Your task to perform on an android device: open chrome and create a bookmark for the current page Image 0: 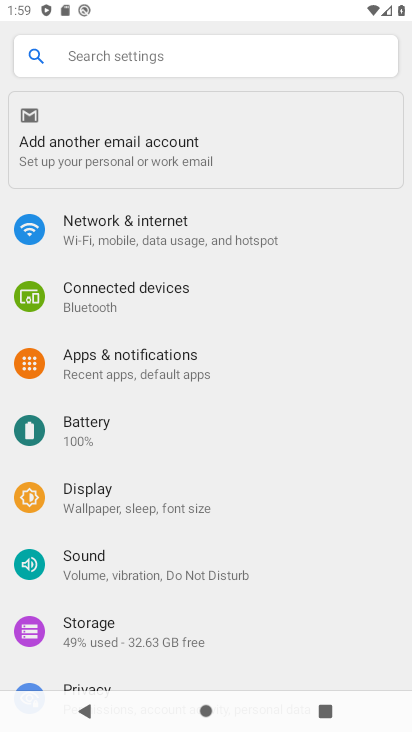
Step 0: press home button
Your task to perform on an android device: open chrome and create a bookmark for the current page Image 1: 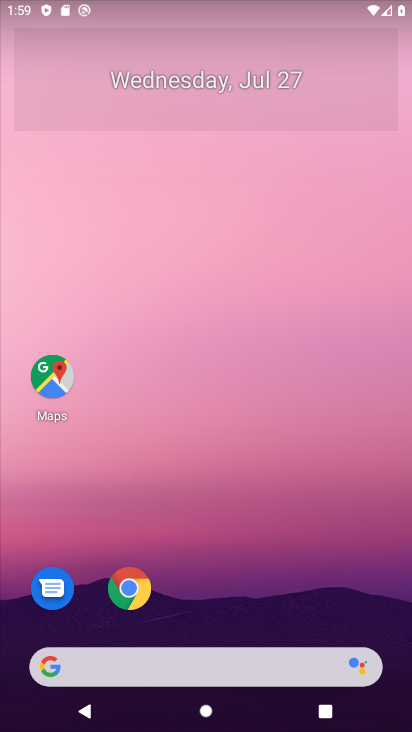
Step 1: click (150, 585)
Your task to perform on an android device: open chrome and create a bookmark for the current page Image 2: 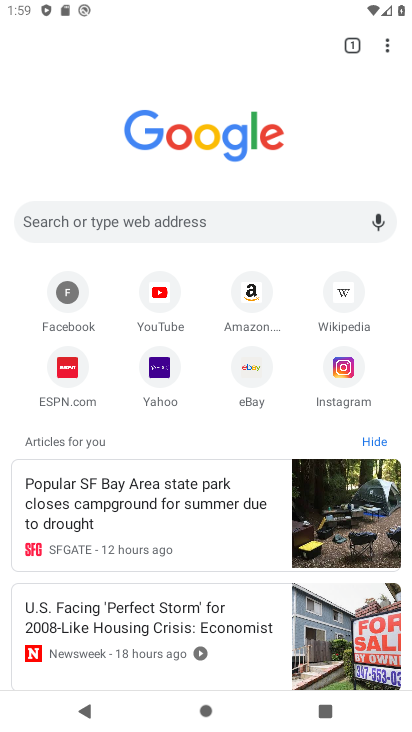
Step 2: drag from (159, 643) to (164, 284)
Your task to perform on an android device: open chrome and create a bookmark for the current page Image 3: 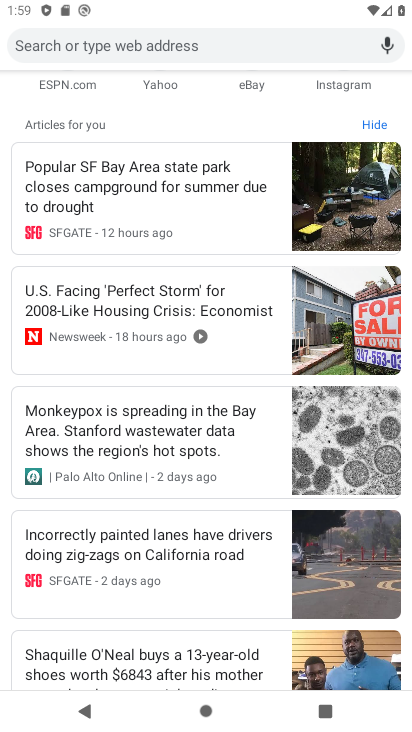
Step 3: drag from (175, 613) to (186, 282)
Your task to perform on an android device: open chrome and create a bookmark for the current page Image 4: 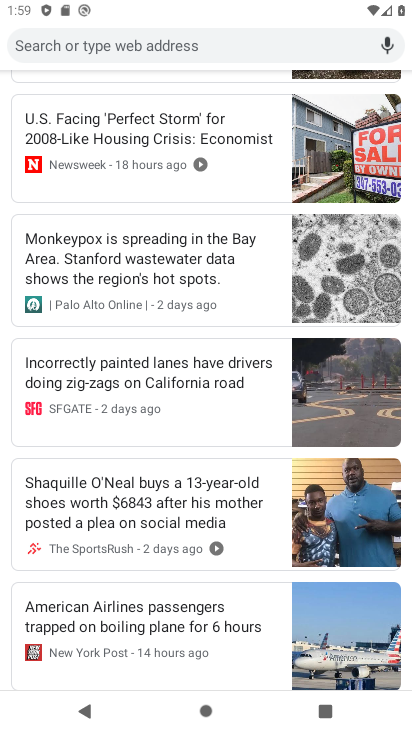
Step 4: click (122, 524)
Your task to perform on an android device: open chrome and create a bookmark for the current page Image 5: 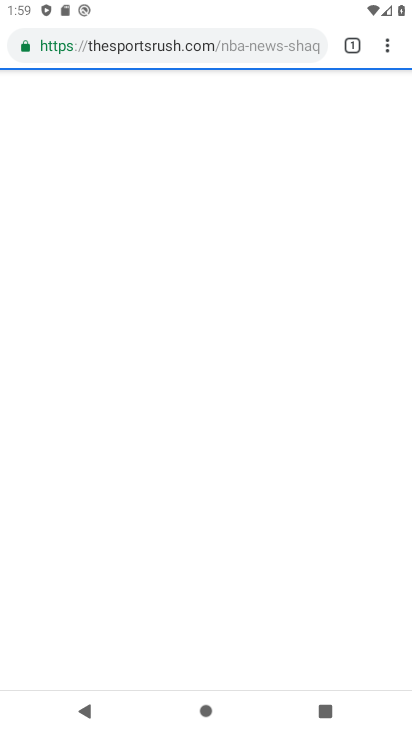
Step 5: click (385, 48)
Your task to perform on an android device: open chrome and create a bookmark for the current page Image 6: 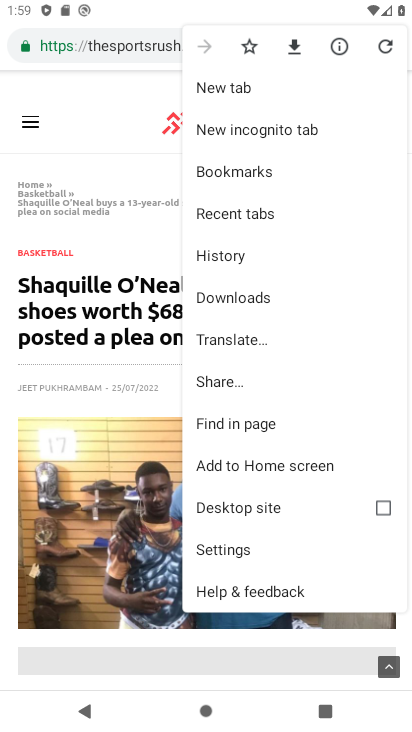
Step 6: click (251, 45)
Your task to perform on an android device: open chrome and create a bookmark for the current page Image 7: 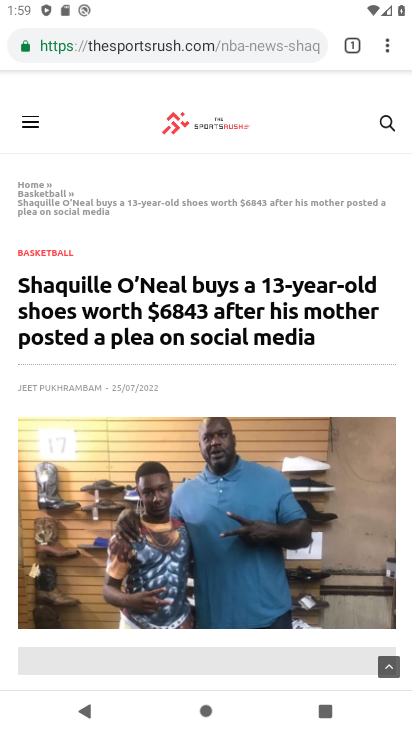
Step 7: task complete